Your task to perform on an android device: Open Google Chrome and click the shortcut for Amazon.com Image 0: 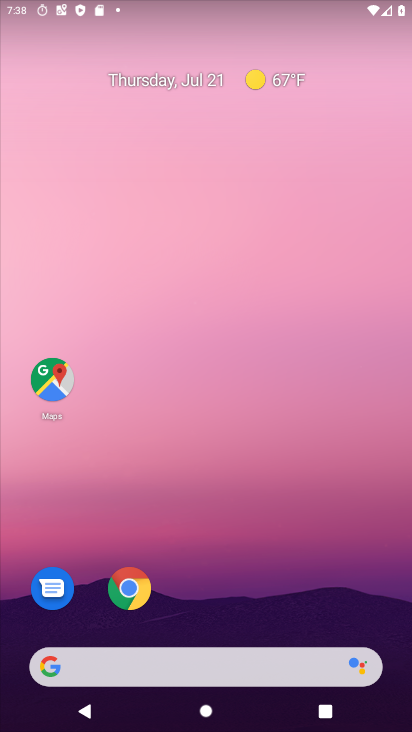
Step 0: click (139, 593)
Your task to perform on an android device: Open Google Chrome and click the shortcut for Amazon.com Image 1: 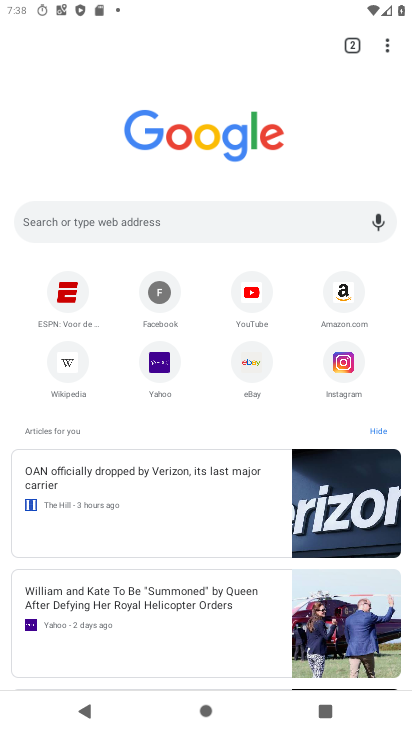
Step 1: click (353, 290)
Your task to perform on an android device: Open Google Chrome and click the shortcut for Amazon.com Image 2: 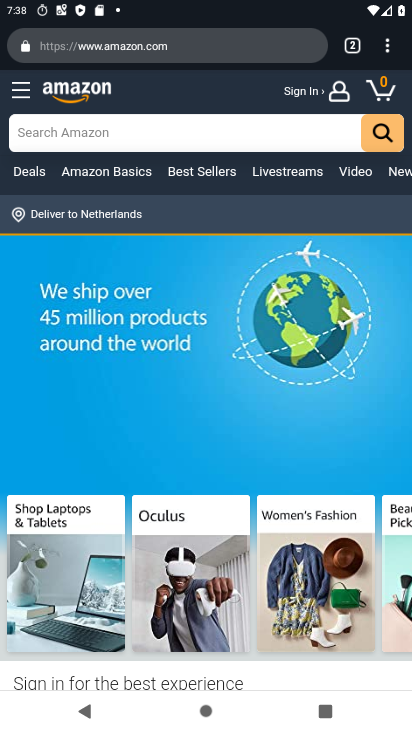
Step 2: task complete